Your task to perform on an android device: turn off location history Image 0: 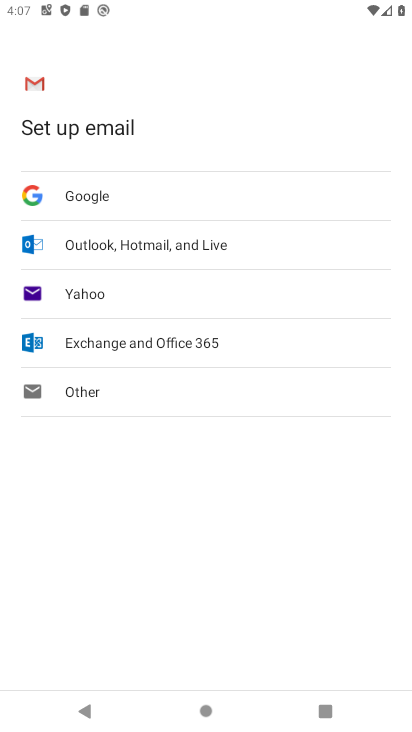
Step 0: press home button
Your task to perform on an android device: turn off location history Image 1: 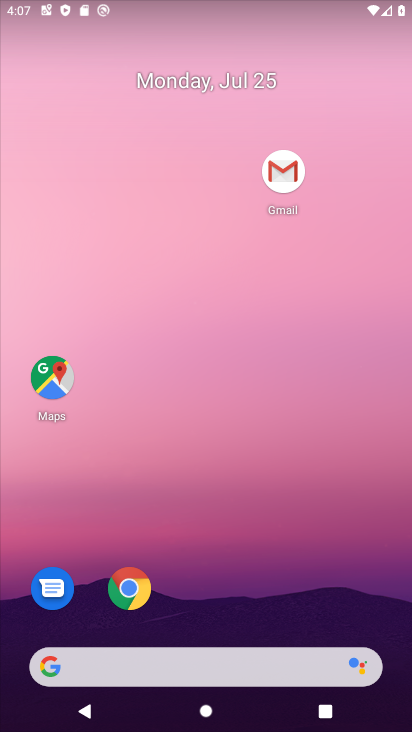
Step 1: drag from (271, 559) to (249, 9)
Your task to perform on an android device: turn off location history Image 2: 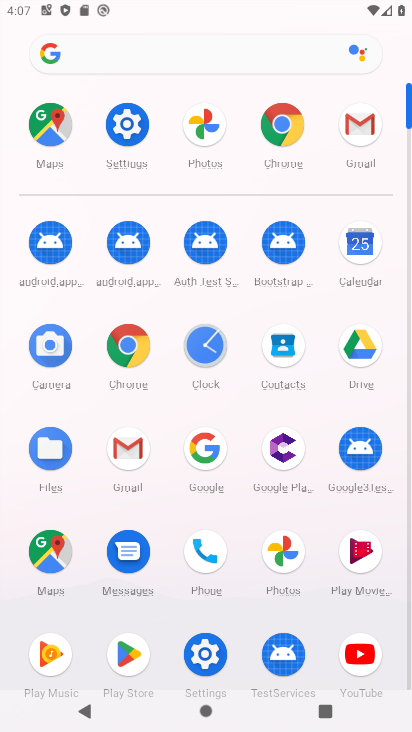
Step 2: click (121, 121)
Your task to perform on an android device: turn off location history Image 3: 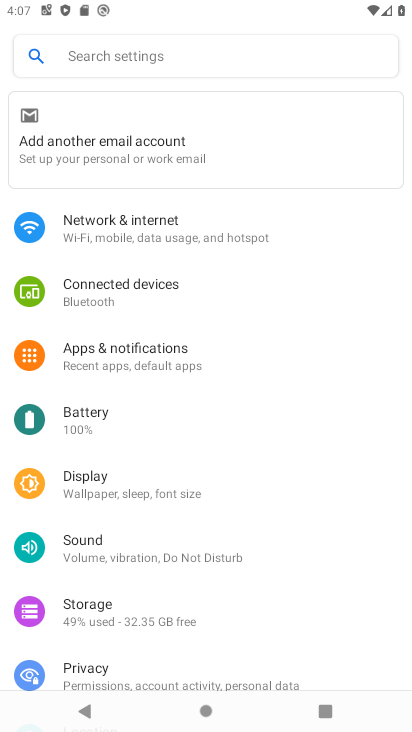
Step 3: drag from (227, 651) to (274, 217)
Your task to perform on an android device: turn off location history Image 4: 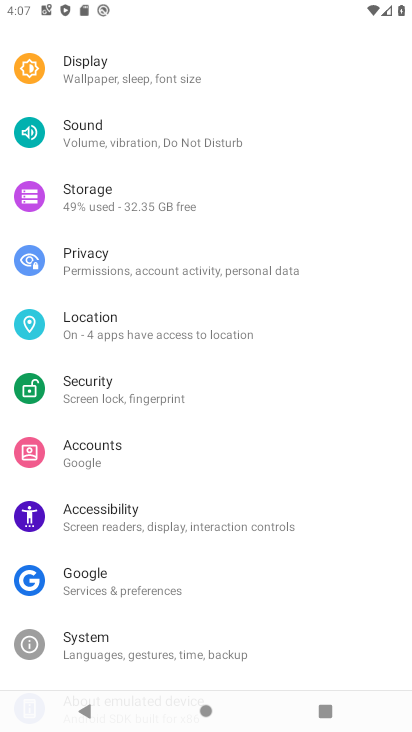
Step 4: click (134, 323)
Your task to perform on an android device: turn off location history Image 5: 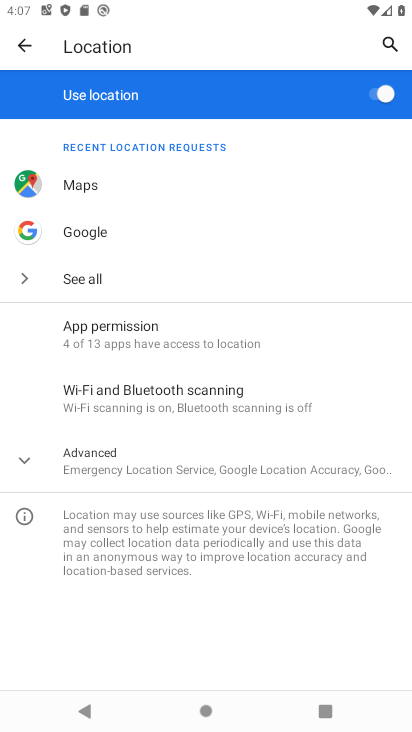
Step 5: click (156, 466)
Your task to perform on an android device: turn off location history Image 6: 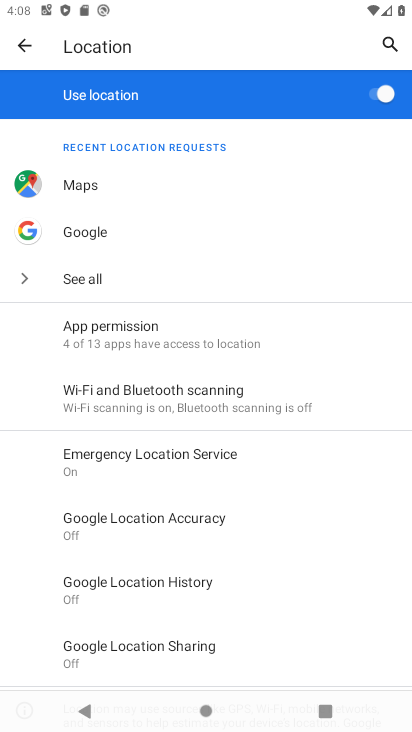
Step 6: click (158, 587)
Your task to perform on an android device: turn off location history Image 7: 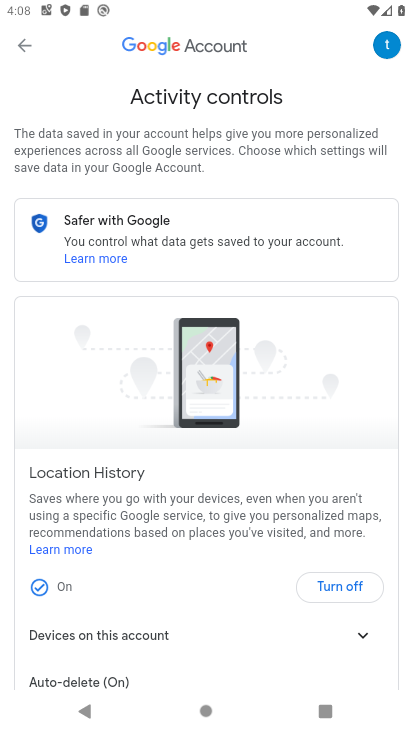
Step 7: click (342, 596)
Your task to perform on an android device: turn off location history Image 8: 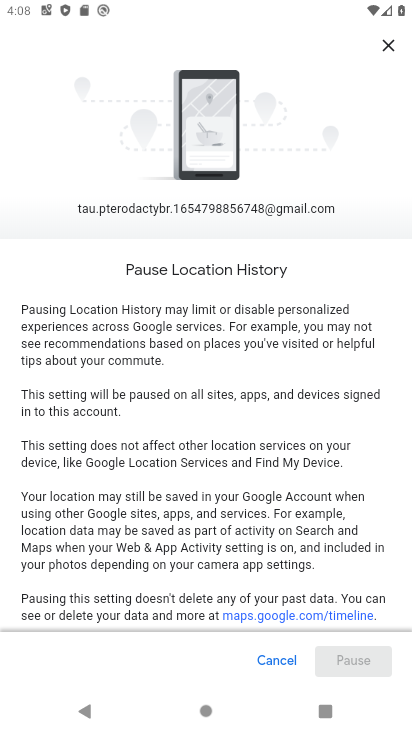
Step 8: drag from (342, 595) to (302, 187)
Your task to perform on an android device: turn off location history Image 9: 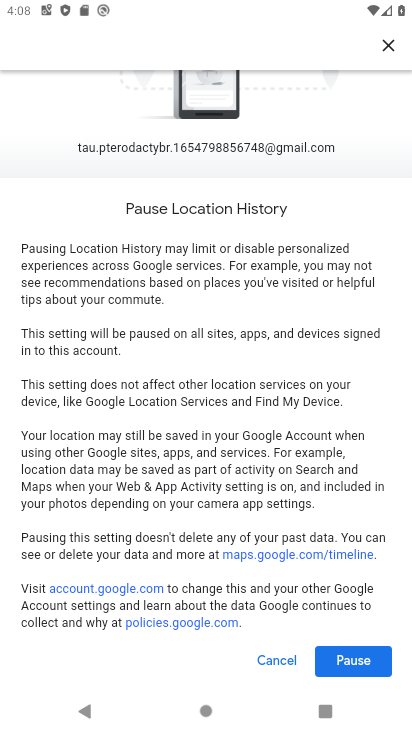
Step 9: click (352, 661)
Your task to perform on an android device: turn off location history Image 10: 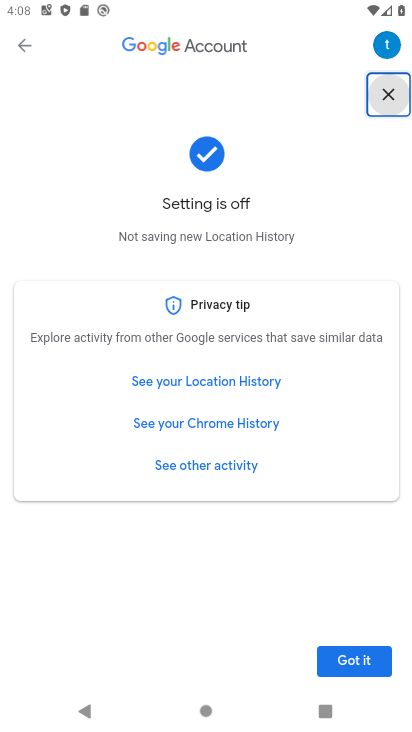
Step 10: task complete